Your task to perform on an android device: see tabs open on other devices in the chrome app Image 0: 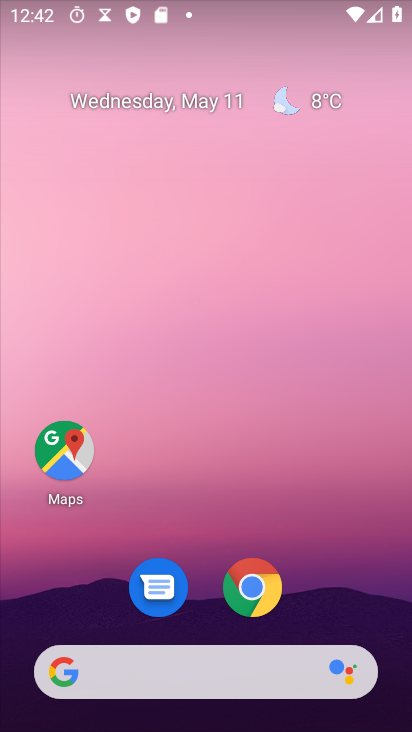
Step 0: drag from (369, 592) to (257, 2)
Your task to perform on an android device: see tabs open on other devices in the chrome app Image 1: 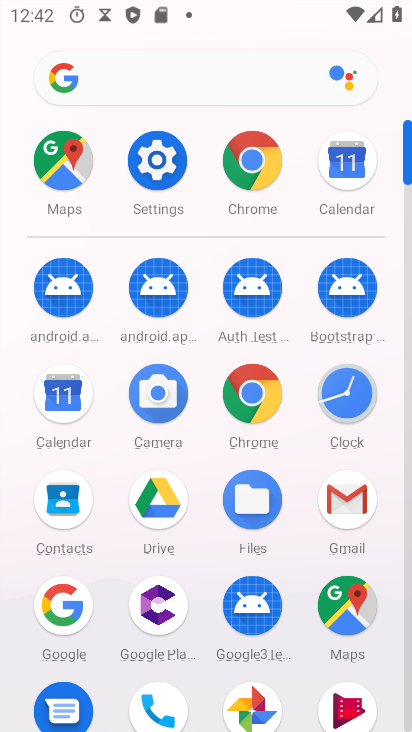
Step 1: click (246, 188)
Your task to perform on an android device: see tabs open on other devices in the chrome app Image 2: 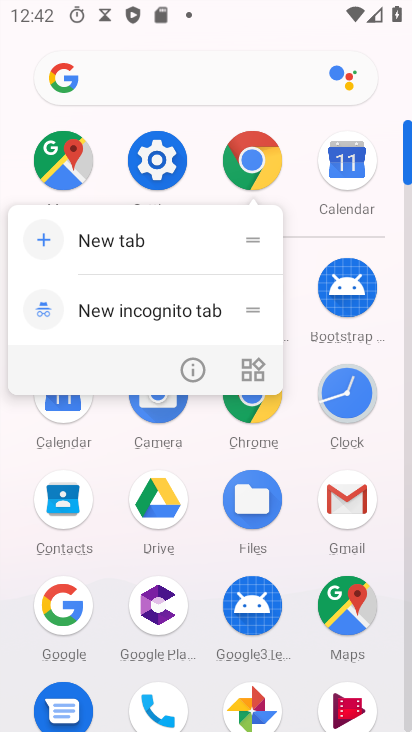
Step 2: click (253, 161)
Your task to perform on an android device: see tabs open on other devices in the chrome app Image 3: 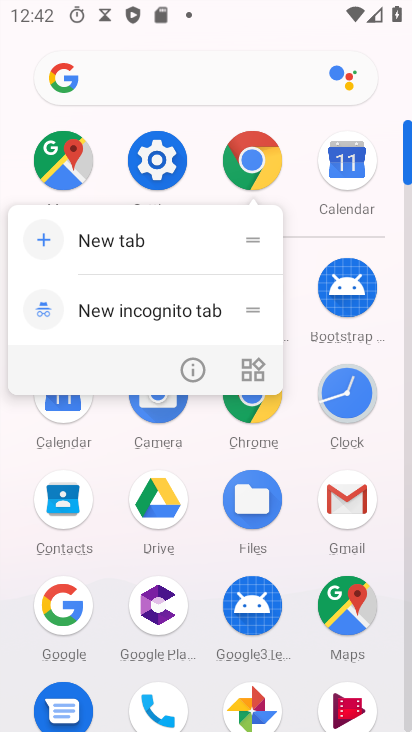
Step 3: click (253, 161)
Your task to perform on an android device: see tabs open on other devices in the chrome app Image 4: 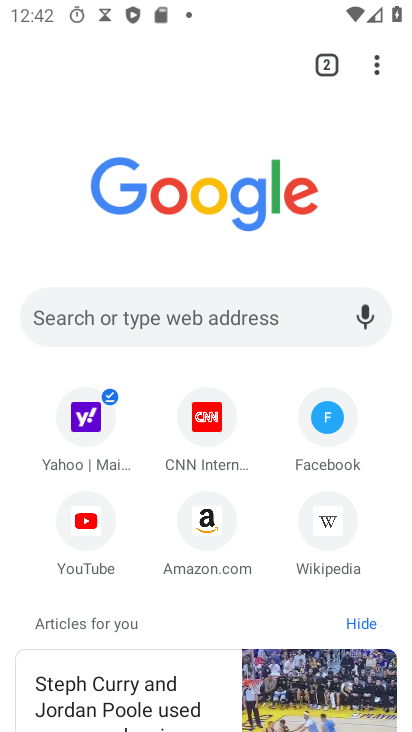
Step 4: click (372, 60)
Your task to perform on an android device: see tabs open on other devices in the chrome app Image 5: 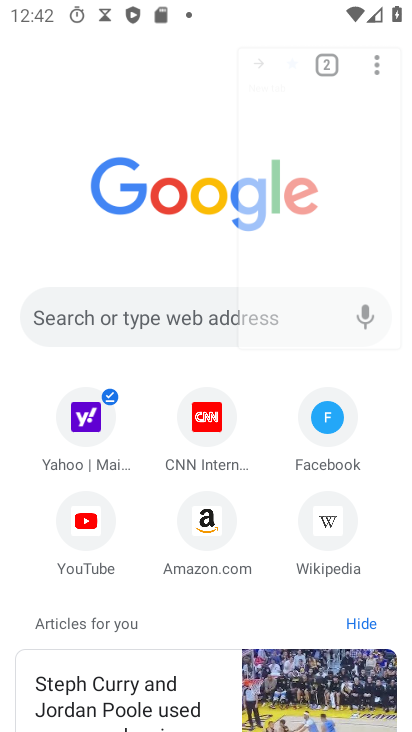
Step 5: click (372, 60)
Your task to perform on an android device: see tabs open on other devices in the chrome app Image 6: 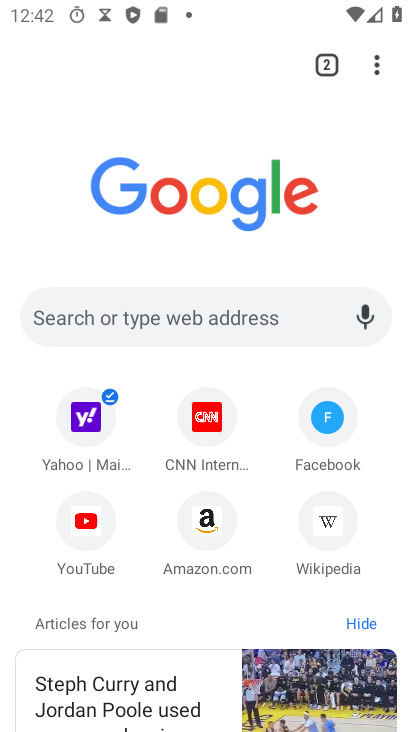
Step 6: drag from (376, 65) to (141, 298)
Your task to perform on an android device: see tabs open on other devices in the chrome app Image 7: 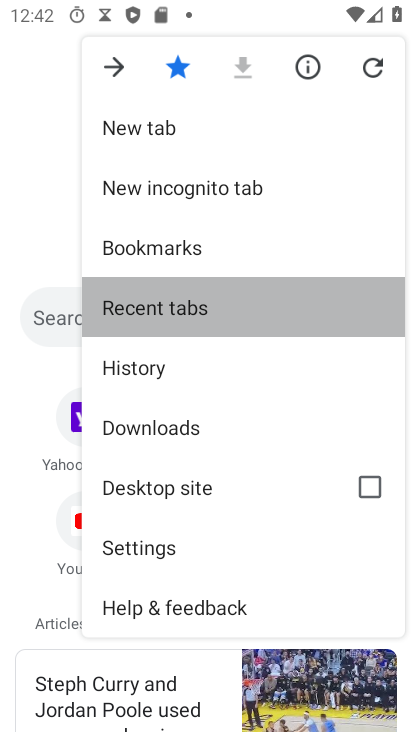
Step 7: click (136, 298)
Your task to perform on an android device: see tabs open on other devices in the chrome app Image 8: 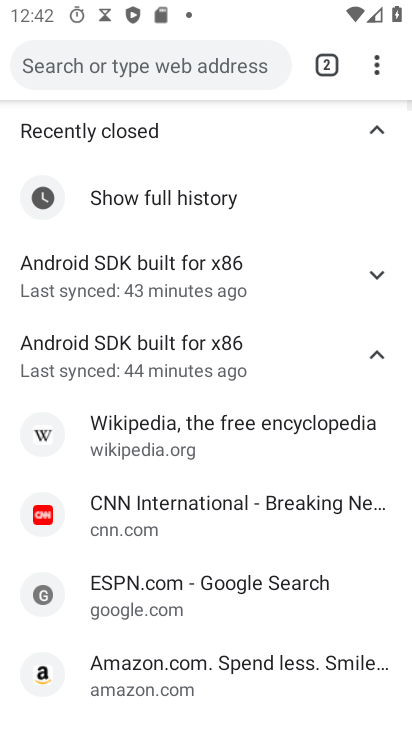
Step 8: task complete